Your task to perform on an android device: Show me popular games on the Play Store Image 0: 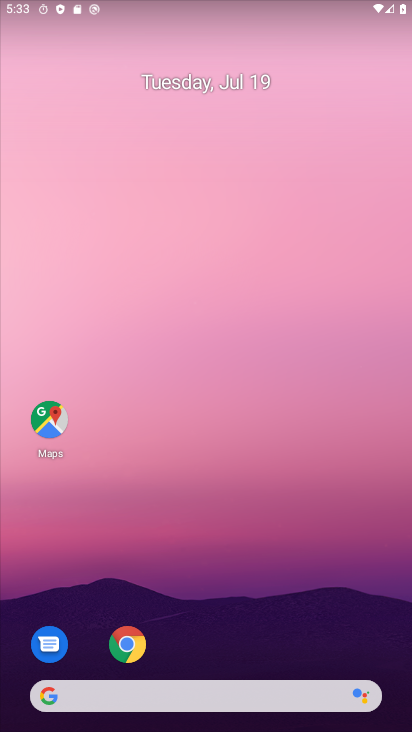
Step 0: drag from (288, 628) to (283, 171)
Your task to perform on an android device: Show me popular games on the Play Store Image 1: 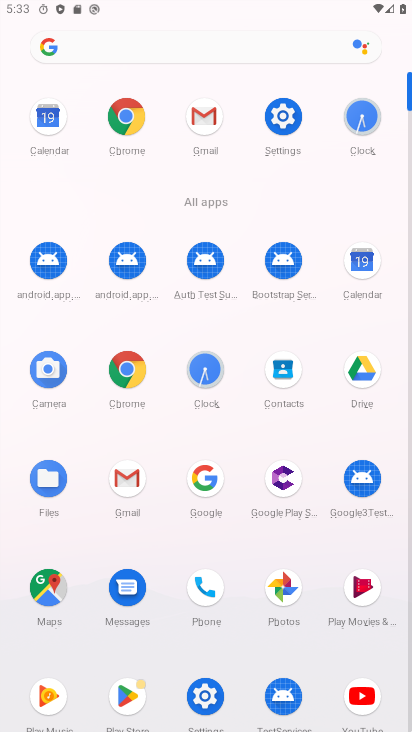
Step 1: click (131, 693)
Your task to perform on an android device: Show me popular games on the Play Store Image 2: 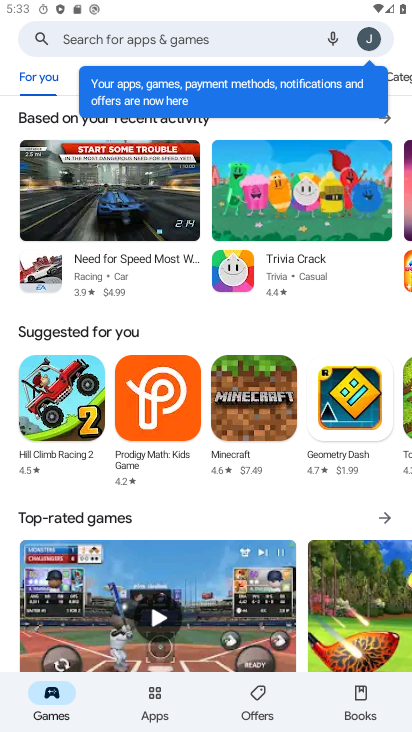
Step 2: click (403, 45)
Your task to perform on an android device: Show me popular games on the Play Store Image 3: 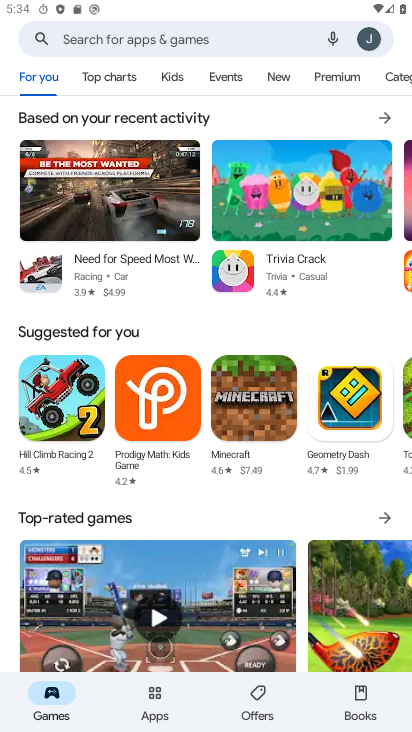
Step 3: click (49, 698)
Your task to perform on an android device: Show me popular games on the Play Store Image 4: 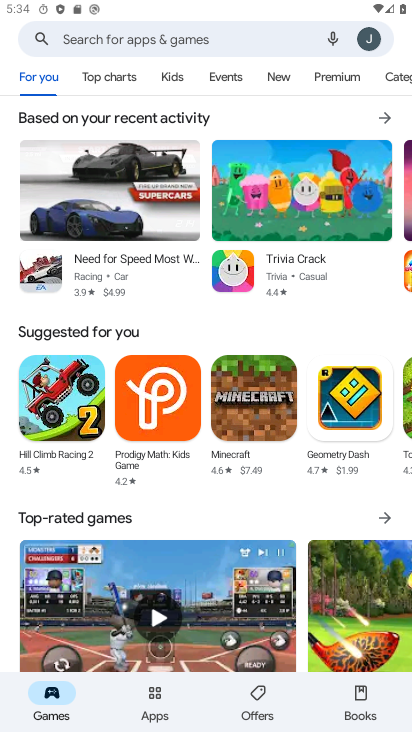
Step 4: task complete